Your task to perform on an android device: Open Google Chrome and open the bookmarks view Image 0: 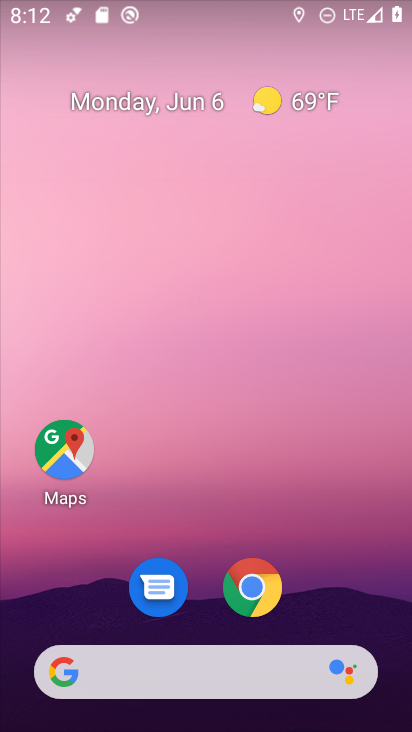
Step 0: click (254, 587)
Your task to perform on an android device: Open Google Chrome and open the bookmarks view Image 1: 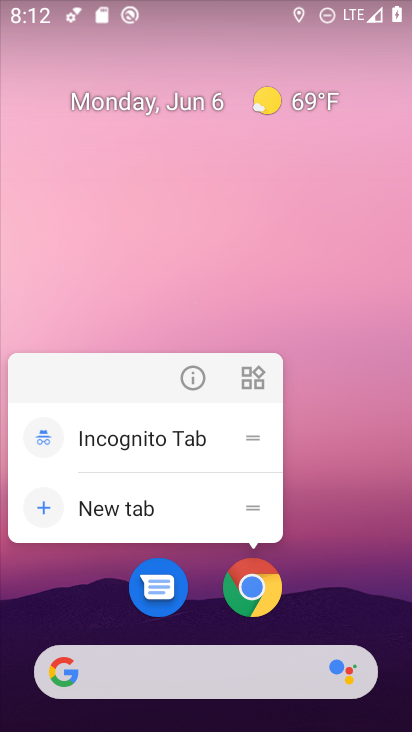
Step 1: click (253, 586)
Your task to perform on an android device: Open Google Chrome and open the bookmarks view Image 2: 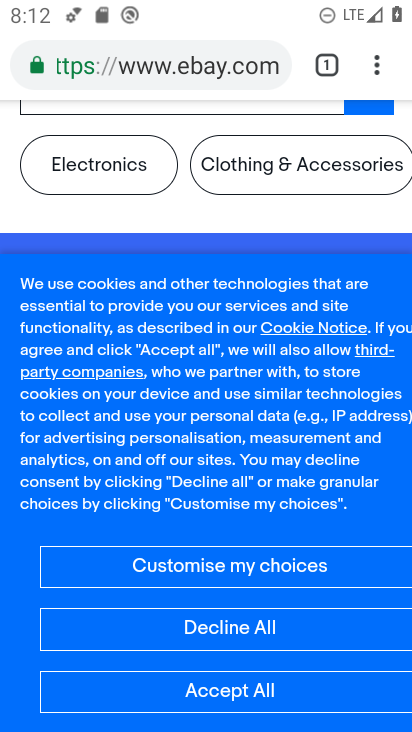
Step 2: task complete